Your task to perform on an android device: Clear the cart on bestbuy. Add macbook air to the cart on bestbuy, then select checkout. Image 0: 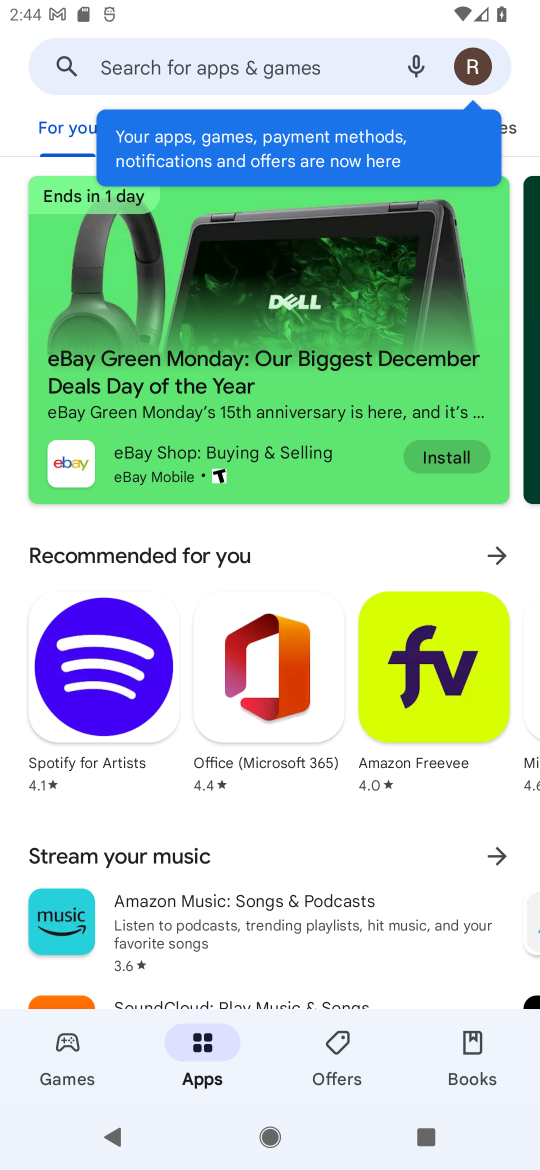
Step 0: press home button
Your task to perform on an android device: Clear the cart on bestbuy. Add macbook air to the cart on bestbuy, then select checkout. Image 1: 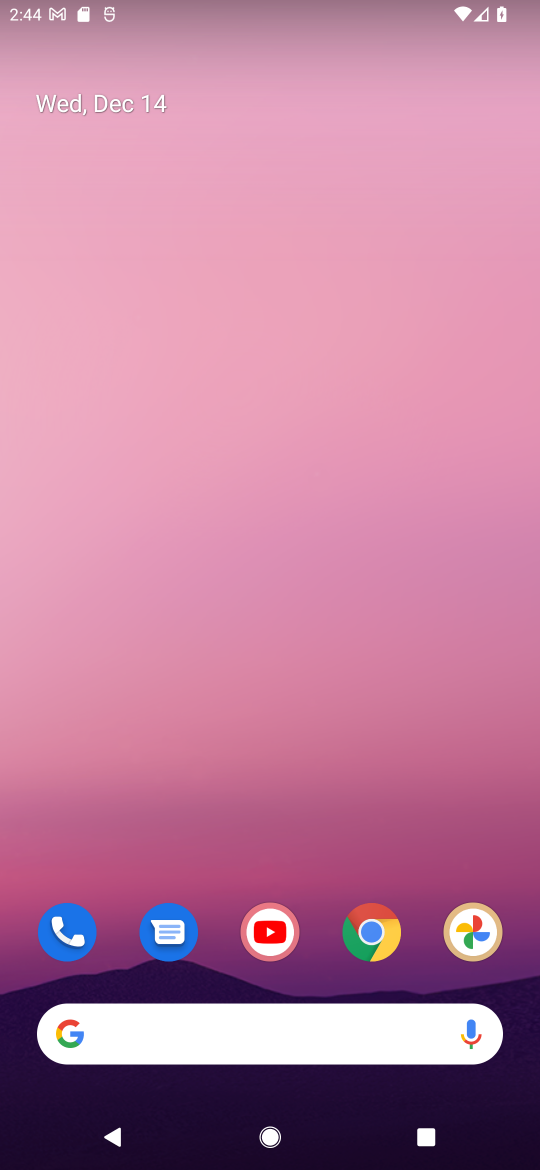
Step 1: click (269, 1025)
Your task to perform on an android device: Clear the cart on bestbuy. Add macbook air to the cart on bestbuy, then select checkout. Image 2: 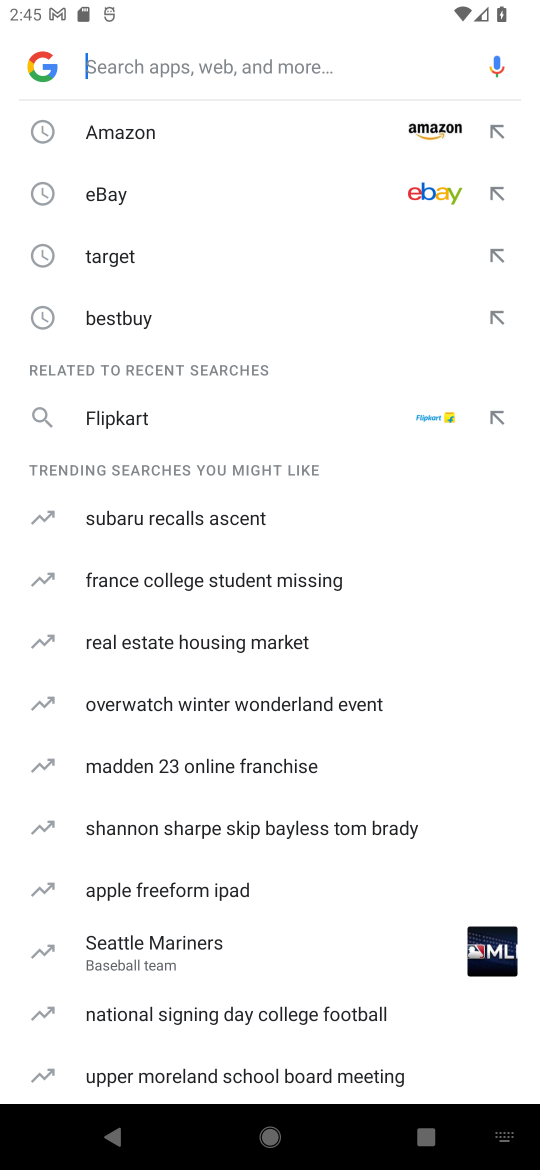
Step 2: click (115, 314)
Your task to perform on an android device: Clear the cart on bestbuy. Add macbook air to the cart on bestbuy, then select checkout. Image 3: 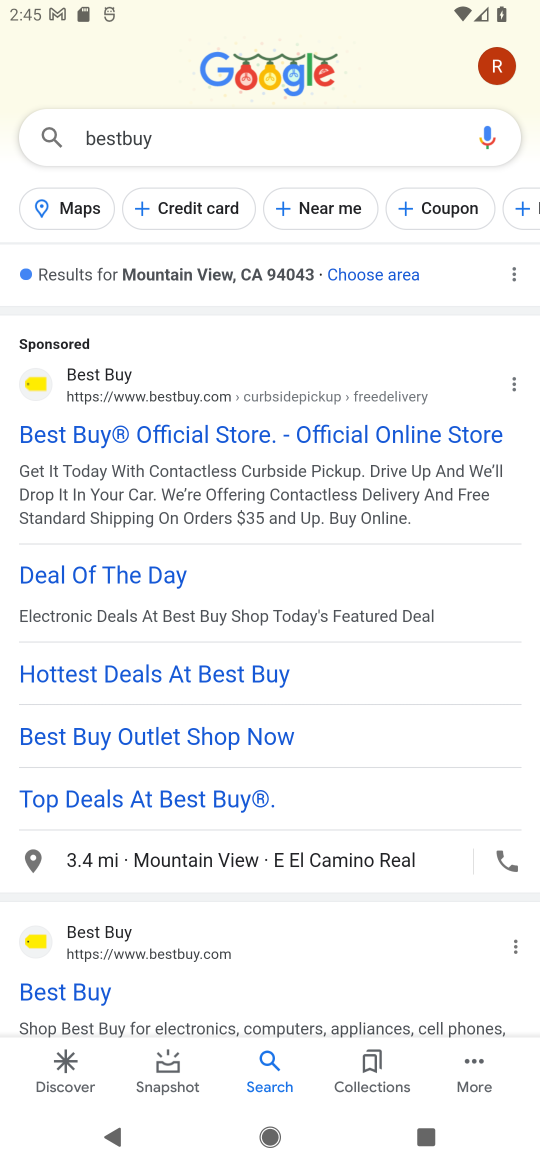
Step 3: click (83, 370)
Your task to perform on an android device: Clear the cart on bestbuy. Add macbook air to the cart on bestbuy, then select checkout. Image 4: 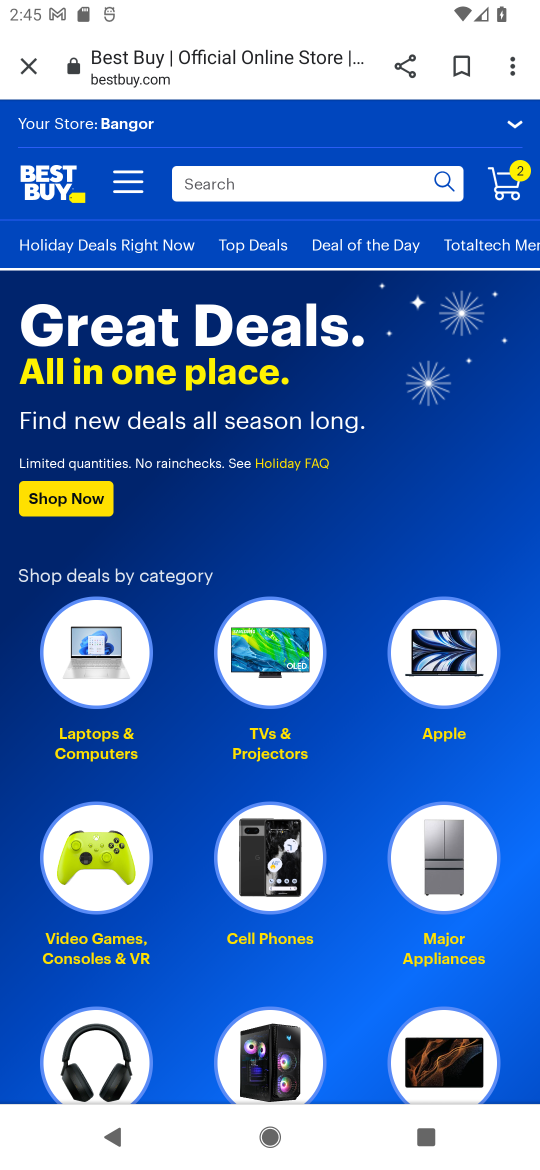
Step 4: click (513, 183)
Your task to perform on an android device: Clear the cart on bestbuy. Add macbook air to the cart on bestbuy, then select checkout. Image 5: 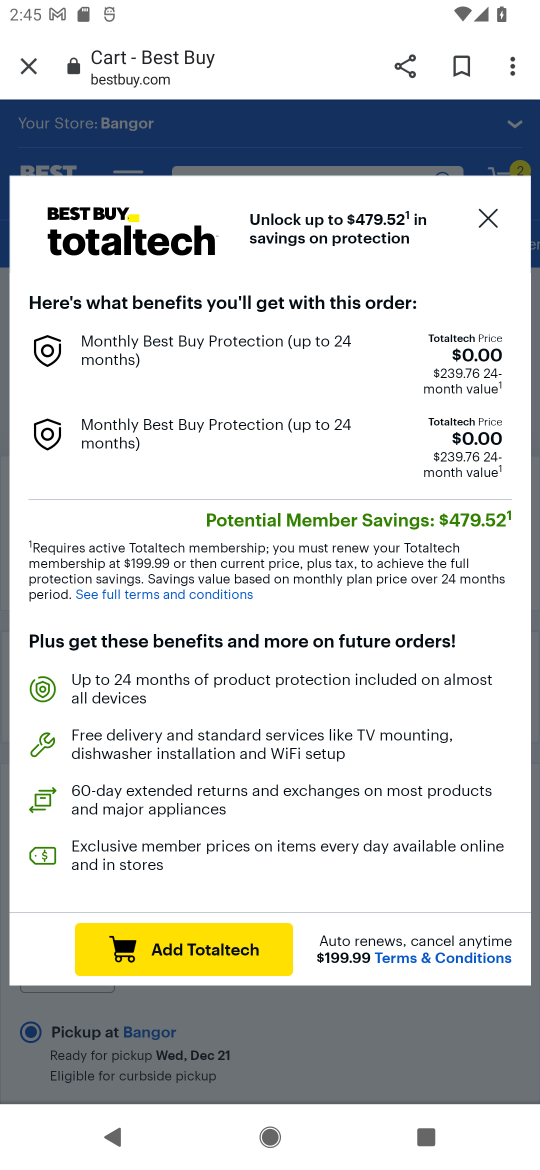
Step 5: click (486, 208)
Your task to perform on an android device: Clear the cart on bestbuy. Add macbook air to the cart on bestbuy, then select checkout. Image 6: 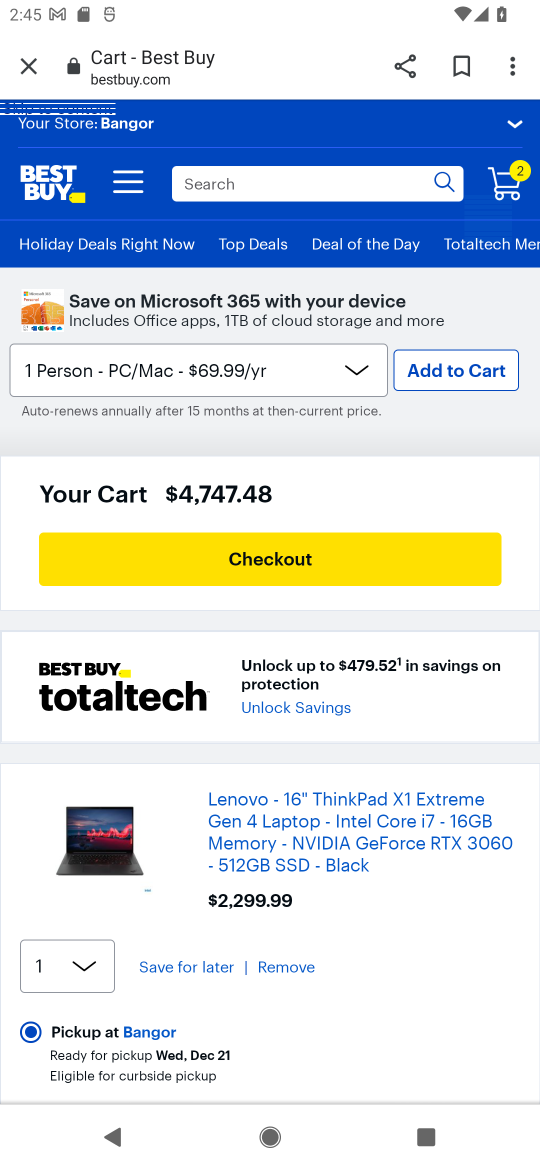
Step 6: click (279, 968)
Your task to perform on an android device: Clear the cart on bestbuy. Add macbook air to the cart on bestbuy, then select checkout. Image 7: 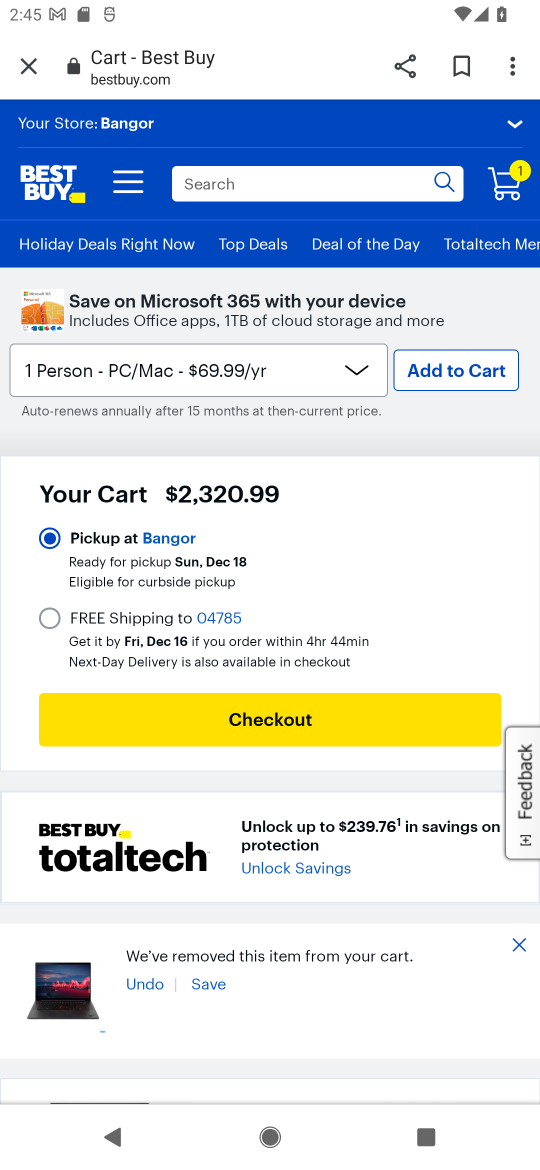
Step 7: click (520, 945)
Your task to perform on an android device: Clear the cart on bestbuy. Add macbook air to the cart on bestbuy, then select checkout. Image 8: 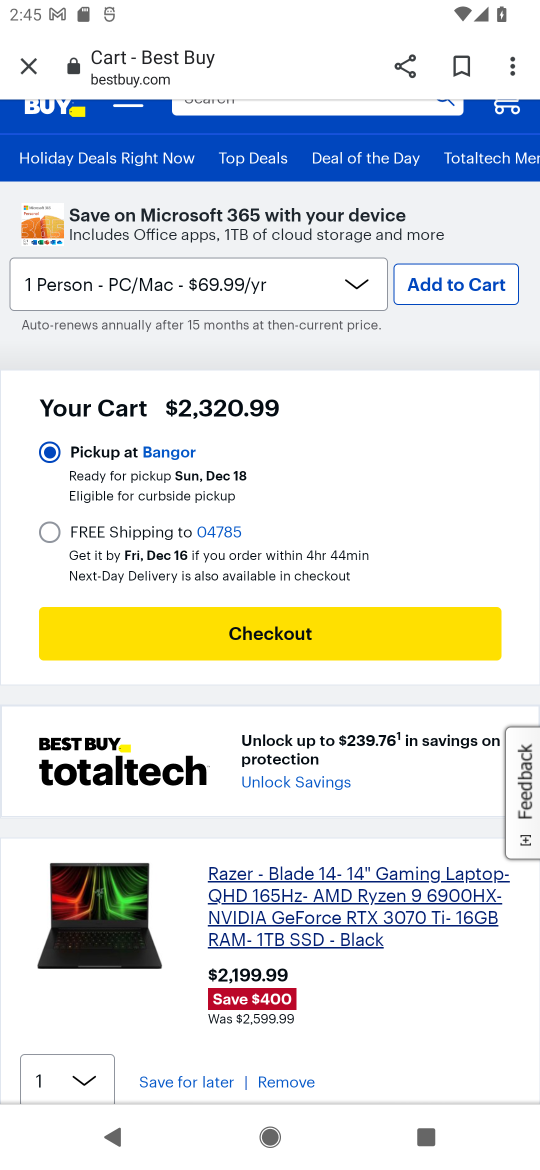
Step 8: click (288, 1077)
Your task to perform on an android device: Clear the cart on bestbuy. Add macbook air to the cart on bestbuy, then select checkout. Image 9: 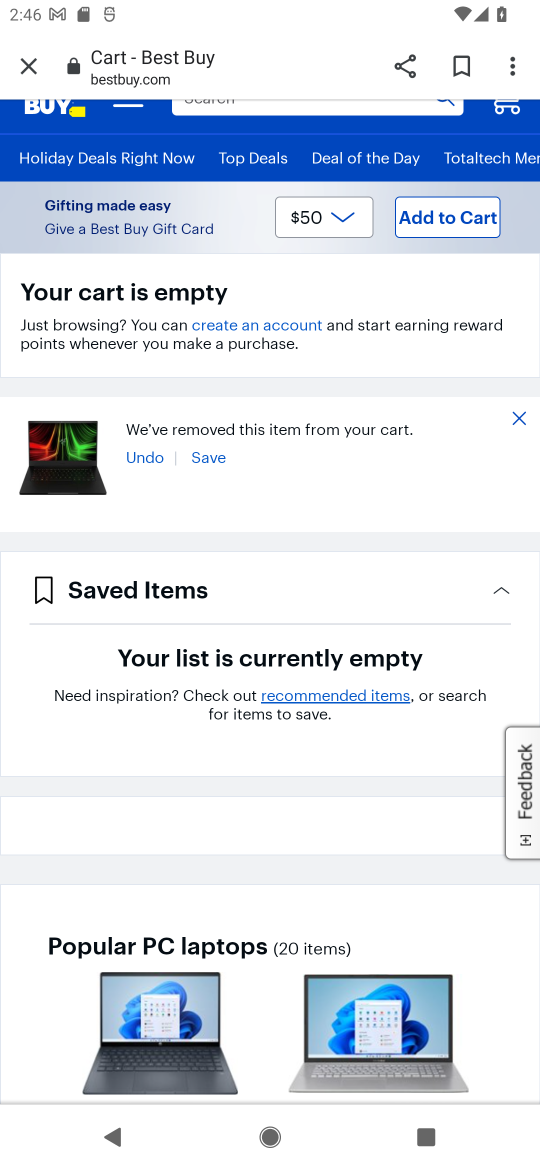
Step 9: click (335, 103)
Your task to perform on an android device: Clear the cart on bestbuy. Add macbook air to the cart on bestbuy, then select checkout. Image 10: 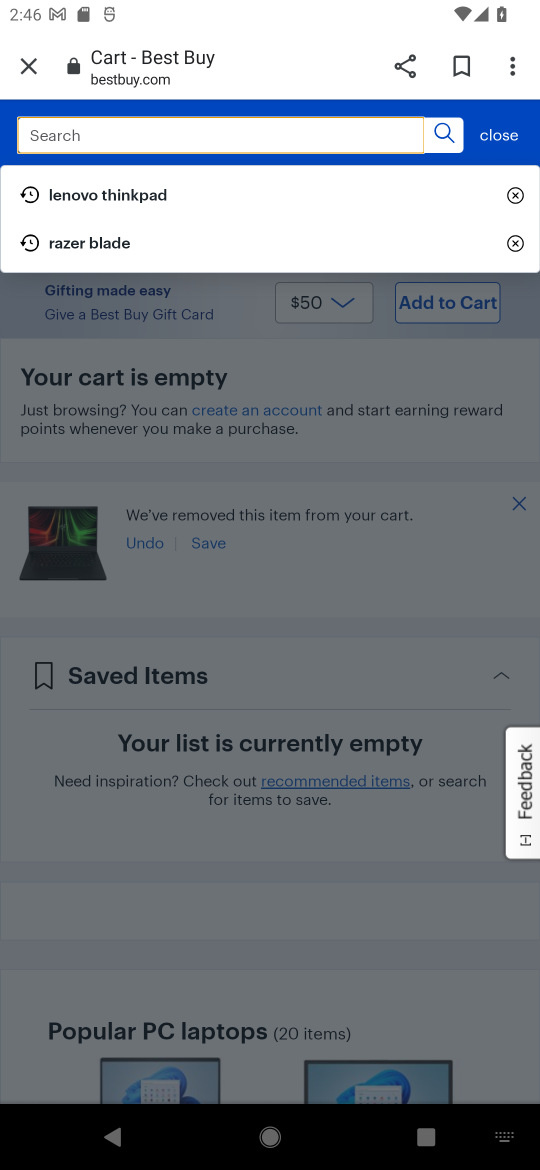
Step 10: type "macbook air"
Your task to perform on an android device: Clear the cart on bestbuy. Add macbook air to the cart on bestbuy, then select checkout. Image 11: 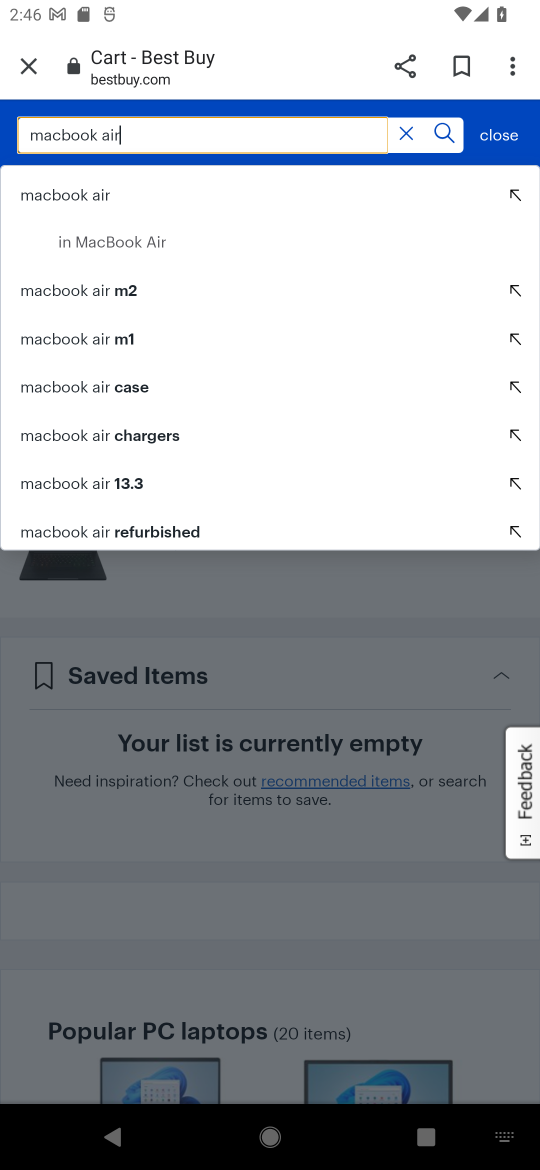
Step 11: click (67, 198)
Your task to perform on an android device: Clear the cart on bestbuy. Add macbook air to the cart on bestbuy, then select checkout. Image 12: 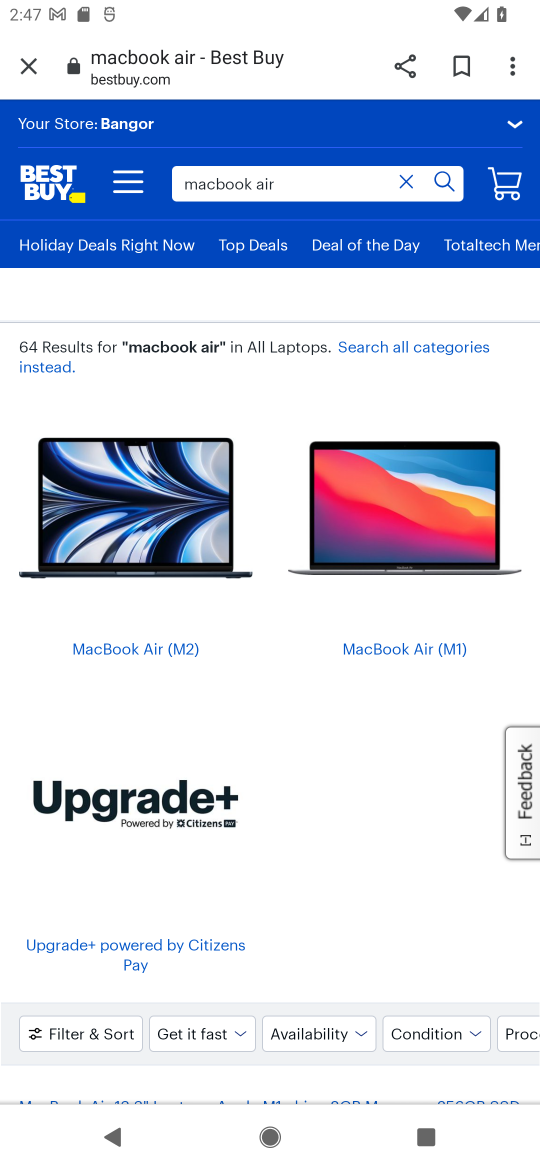
Step 12: click (150, 544)
Your task to perform on an android device: Clear the cart on bestbuy. Add macbook air to the cart on bestbuy, then select checkout. Image 13: 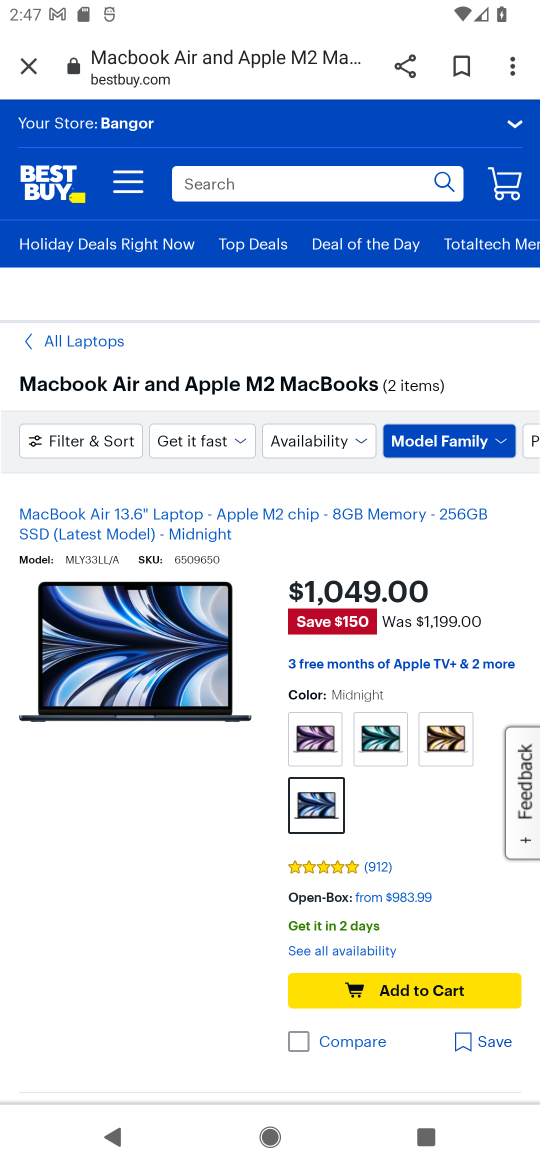
Step 13: click (411, 985)
Your task to perform on an android device: Clear the cart on bestbuy. Add macbook air to the cart on bestbuy, then select checkout. Image 14: 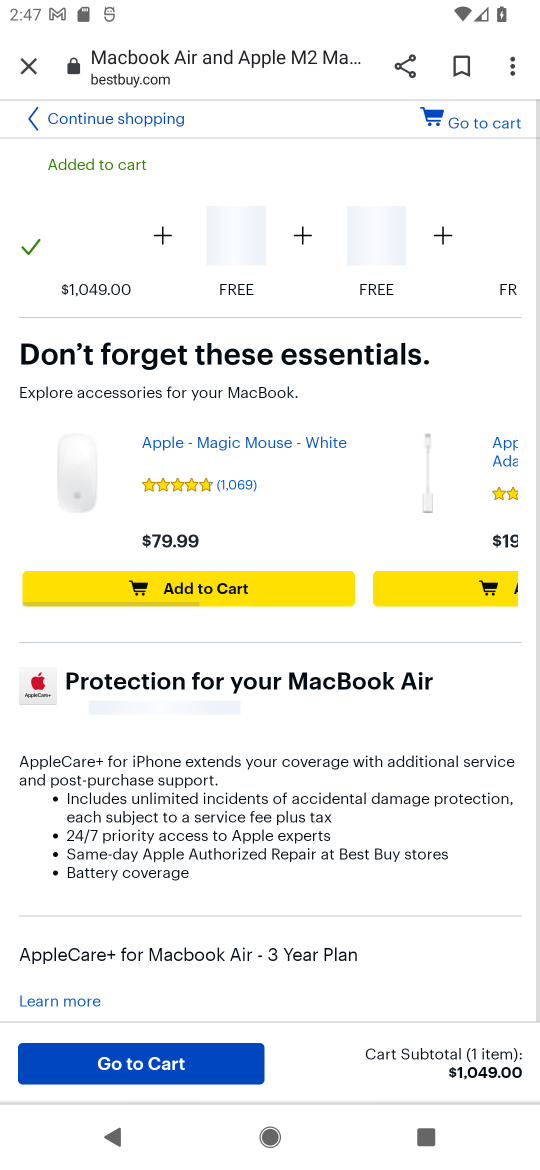
Step 14: click (117, 1074)
Your task to perform on an android device: Clear the cart on bestbuy. Add macbook air to the cart on bestbuy, then select checkout. Image 15: 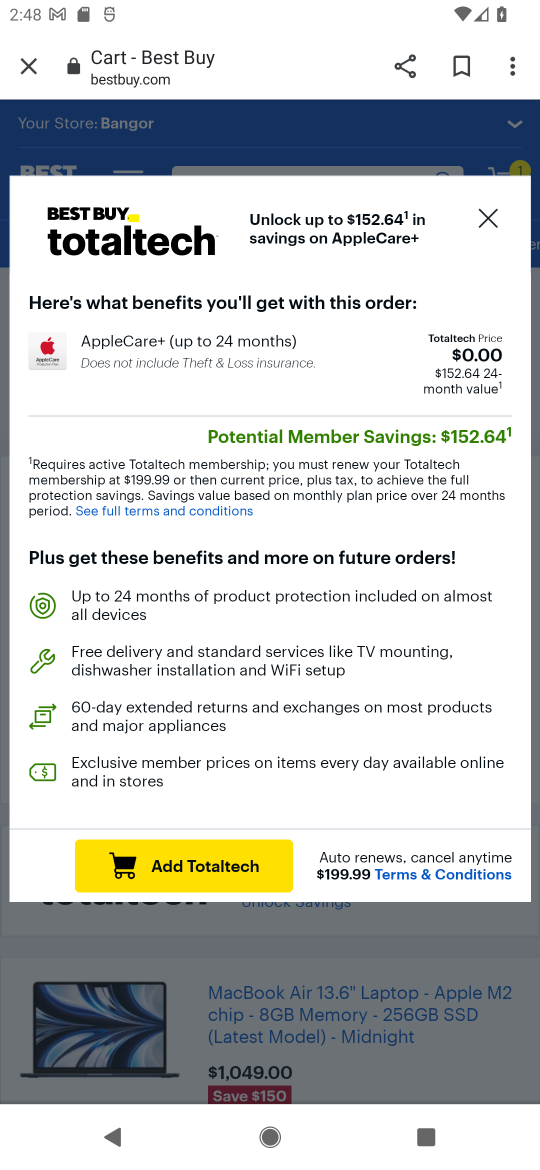
Step 15: click (266, 741)
Your task to perform on an android device: Clear the cart on bestbuy. Add macbook air to the cart on bestbuy, then select checkout. Image 16: 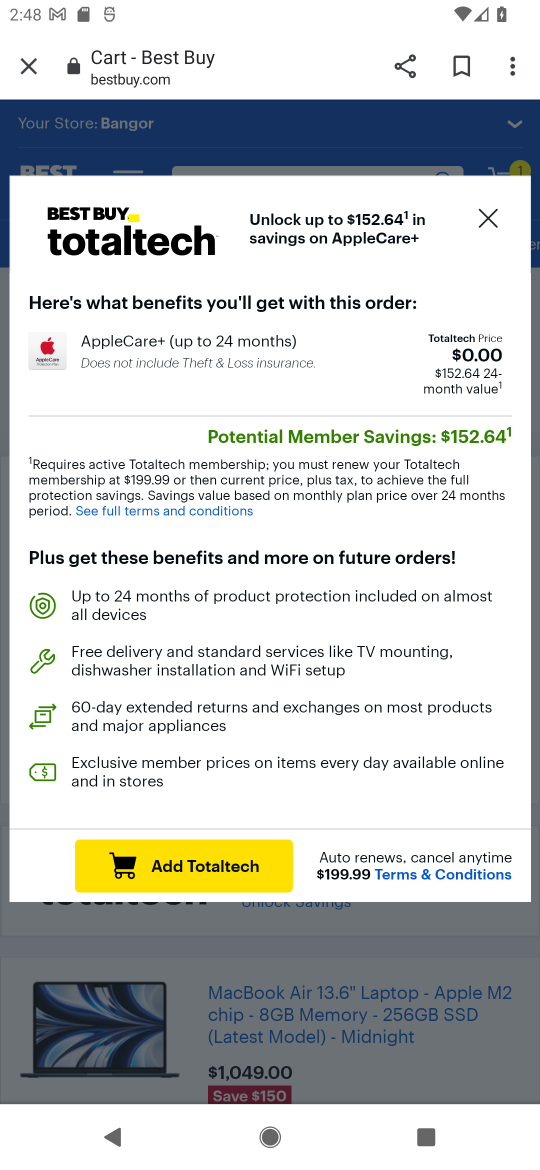
Step 16: click (486, 230)
Your task to perform on an android device: Clear the cart on bestbuy. Add macbook air to the cart on bestbuy, then select checkout. Image 17: 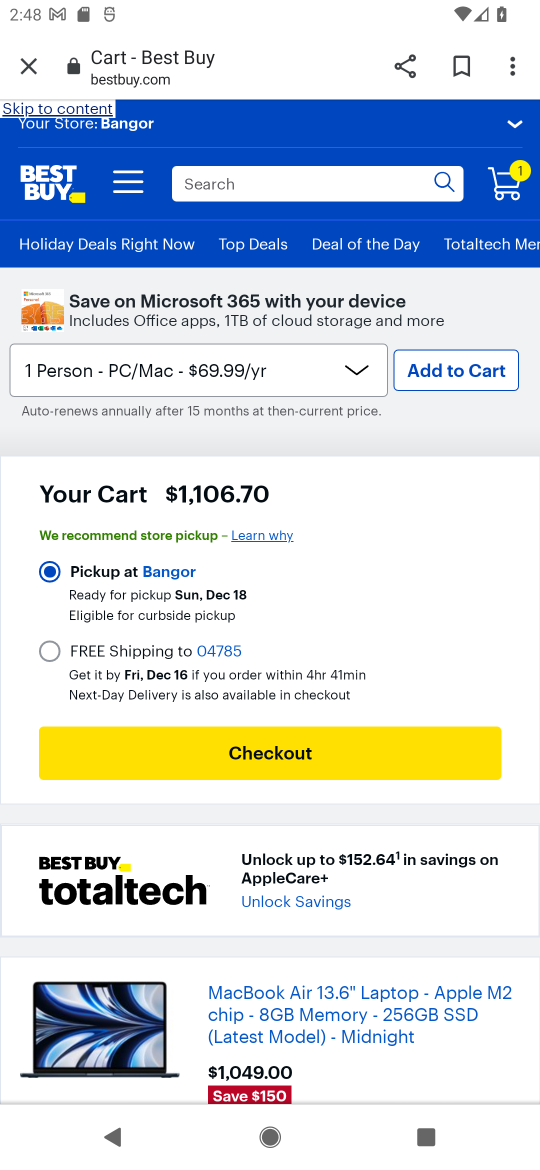
Step 17: click (268, 749)
Your task to perform on an android device: Clear the cart on bestbuy. Add macbook air to the cart on bestbuy, then select checkout. Image 18: 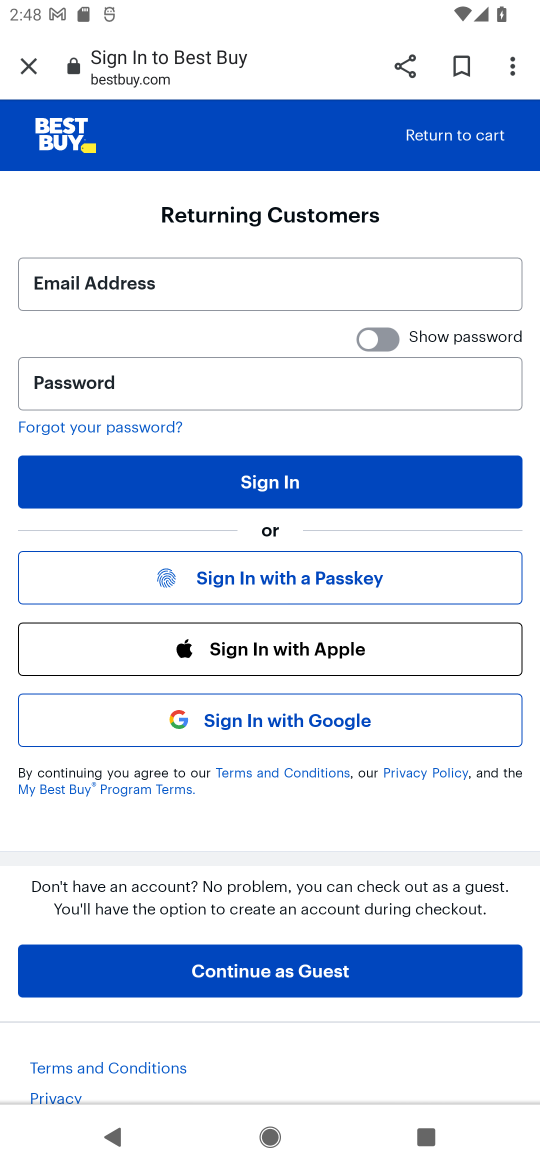
Step 18: task complete